Your task to perform on an android device: Open calendar and show me the first week of next month Image 0: 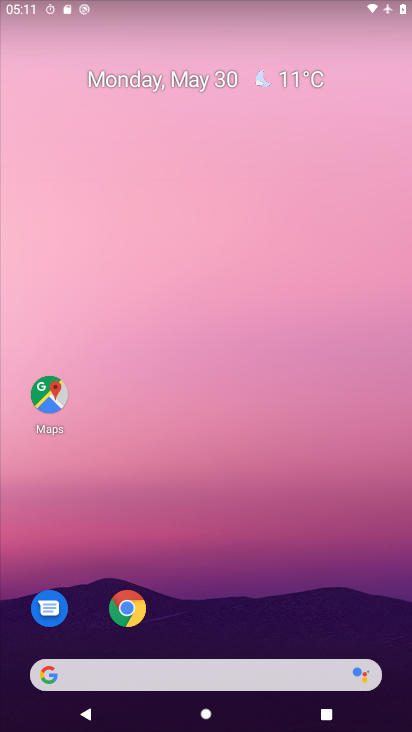
Step 0: drag from (276, 385) to (225, 16)
Your task to perform on an android device: Open calendar and show me the first week of next month Image 1: 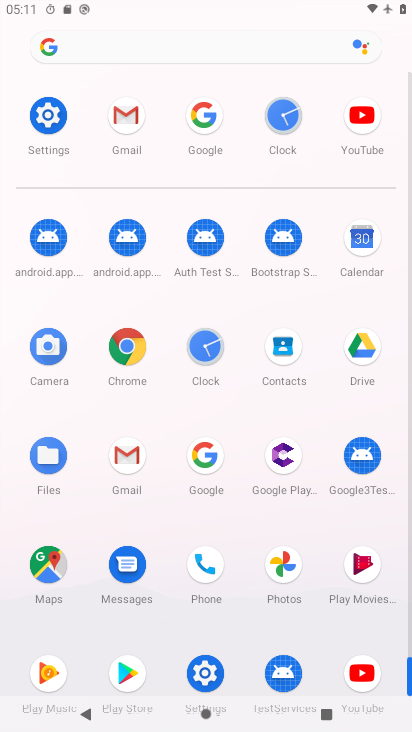
Step 1: click (376, 249)
Your task to perform on an android device: Open calendar and show me the first week of next month Image 2: 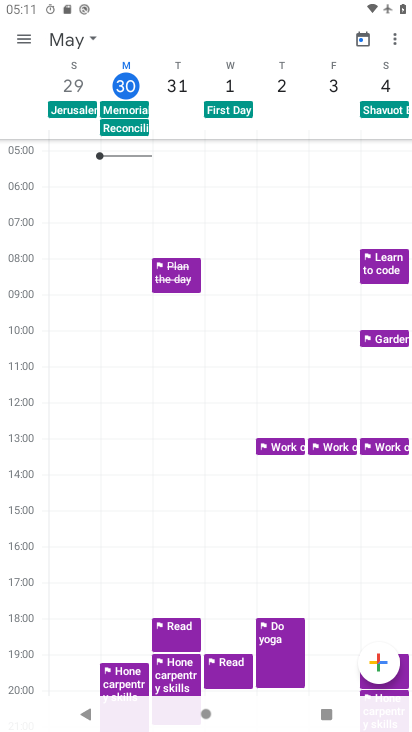
Step 2: click (88, 39)
Your task to perform on an android device: Open calendar and show me the first week of next month Image 3: 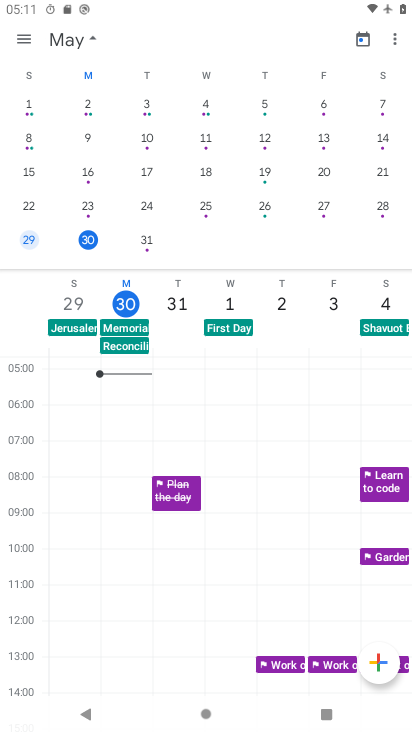
Step 3: drag from (349, 194) to (2, 172)
Your task to perform on an android device: Open calendar and show me the first week of next month Image 4: 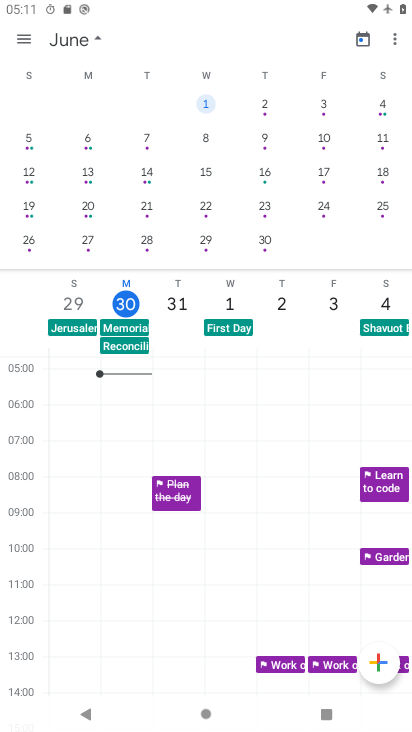
Step 4: click (37, 138)
Your task to perform on an android device: Open calendar and show me the first week of next month Image 5: 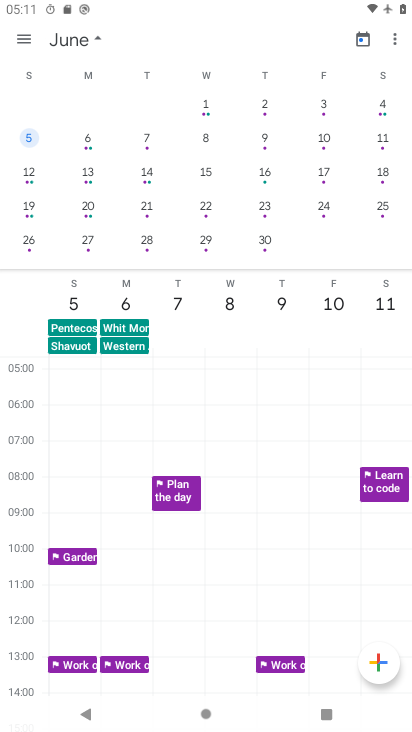
Step 5: click (206, 103)
Your task to perform on an android device: Open calendar and show me the first week of next month Image 6: 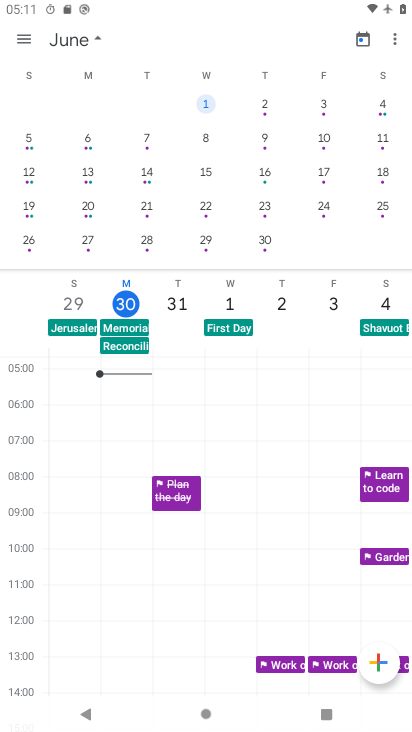
Step 6: task complete